Your task to perform on an android device: change your default location settings in chrome Image 0: 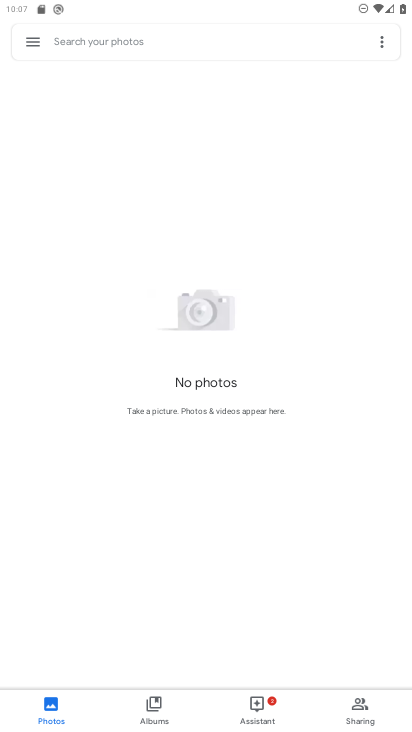
Step 0: press back button
Your task to perform on an android device: change your default location settings in chrome Image 1: 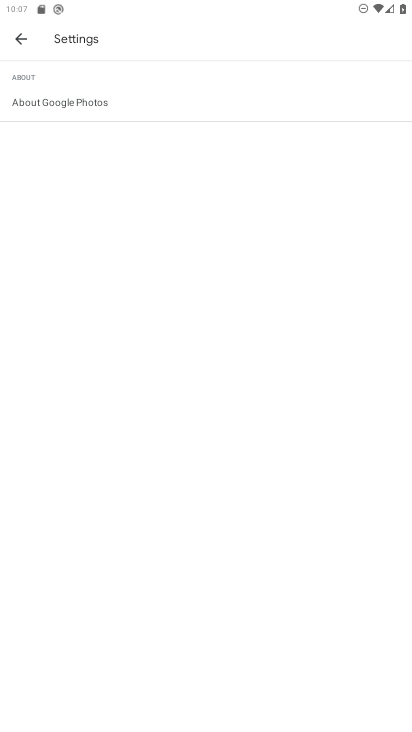
Step 1: press back button
Your task to perform on an android device: change your default location settings in chrome Image 2: 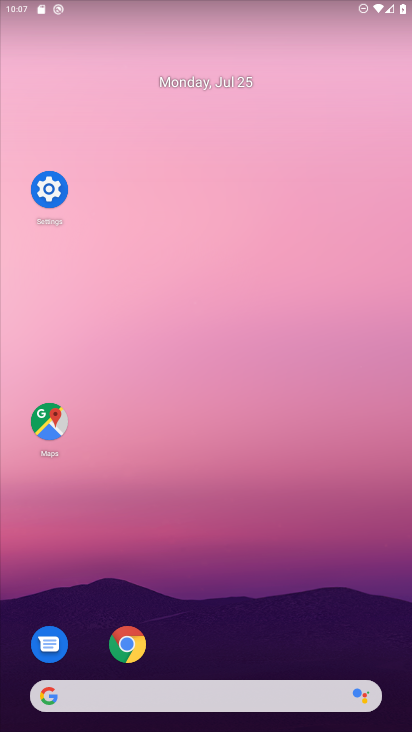
Step 2: click (137, 649)
Your task to perform on an android device: change your default location settings in chrome Image 3: 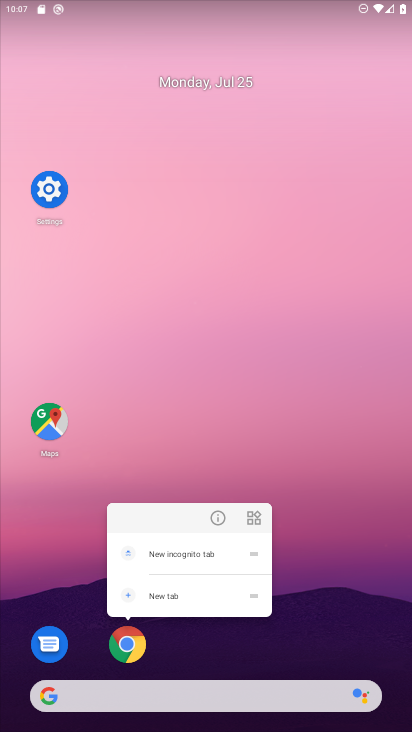
Step 3: click (126, 645)
Your task to perform on an android device: change your default location settings in chrome Image 4: 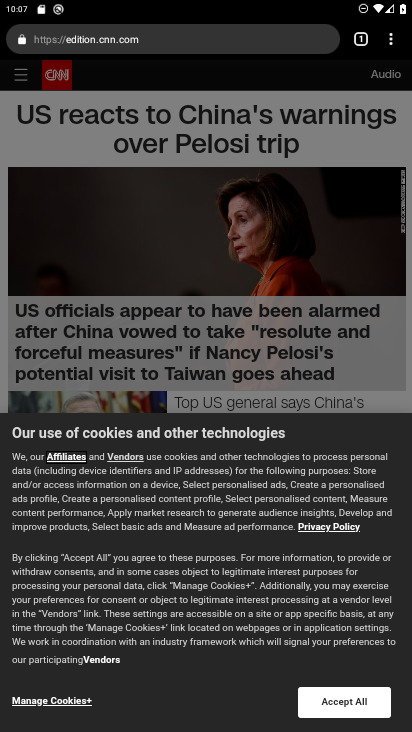
Step 4: click (398, 39)
Your task to perform on an android device: change your default location settings in chrome Image 5: 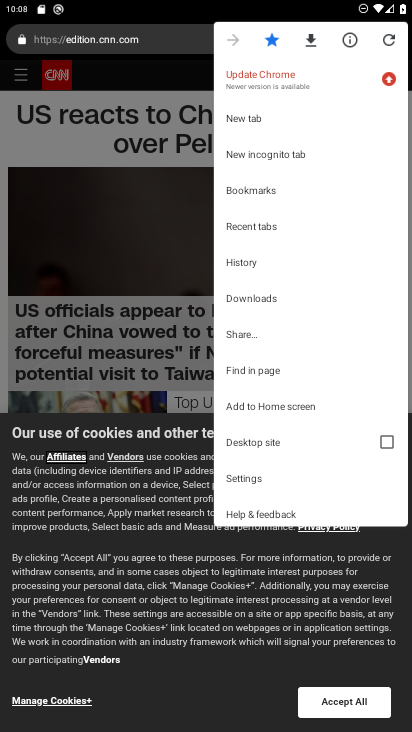
Step 5: click (273, 480)
Your task to perform on an android device: change your default location settings in chrome Image 6: 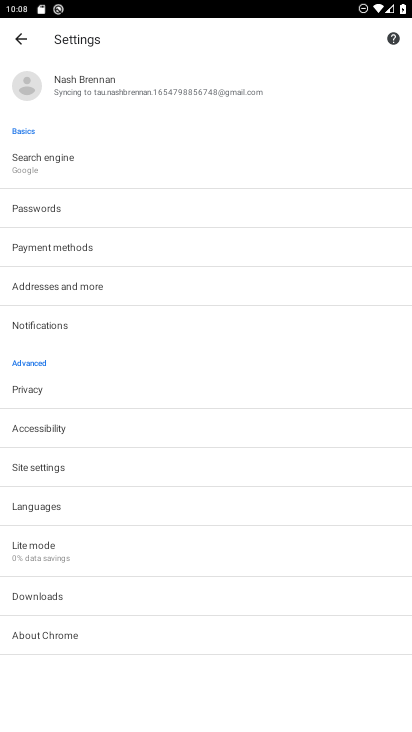
Step 6: click (71, 480)
Your task to perform on an android device: change your default location settings in chrome Image 7: 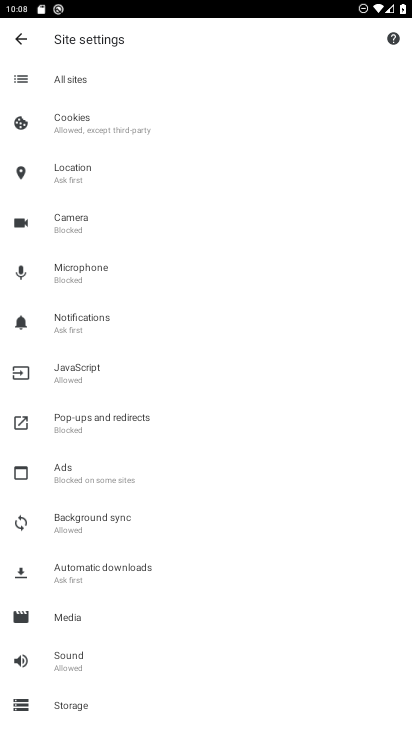
Step 7: click (206, 169)
Your task to perform on an android device: change your default location settings in chrome Image 8: 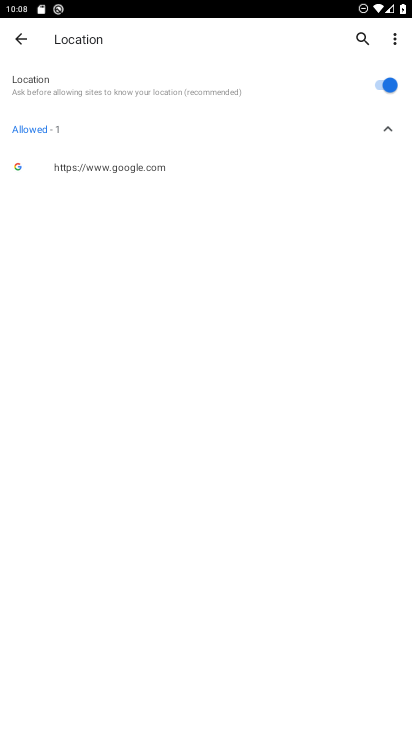
Step 8: click (376, 77)
Your task to perform on an android device: change your default location settings in chrome Image 9: 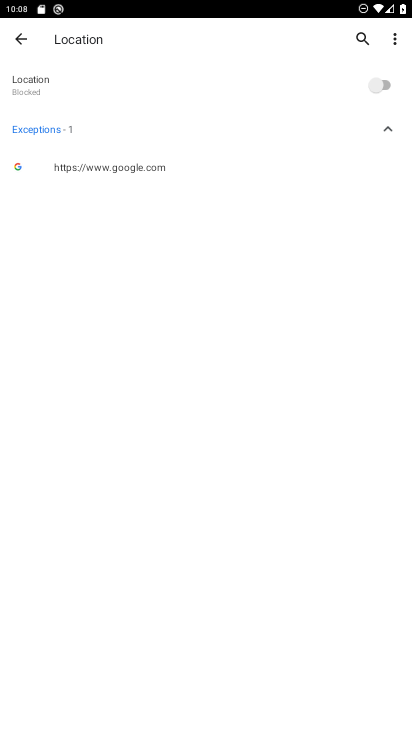
Step 9: task complete